Your task to perform on an android device: What's on the menu at Five Guys? Image 0: 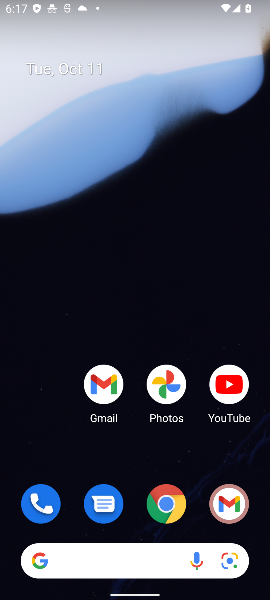
Step 0: click (112, 570)
Your task to perform on an android device: What's on the menu at Five Guys? Image 1: 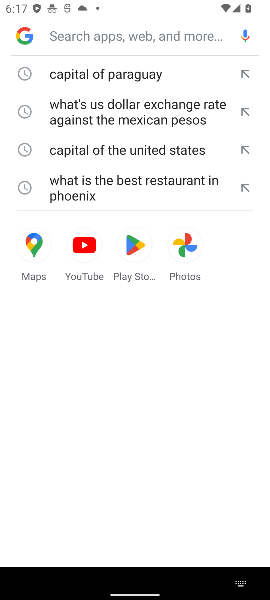
Step 1: click (67, 43)
Your task to perform on an android device: What's on the menu at Five Guys? Image 2: 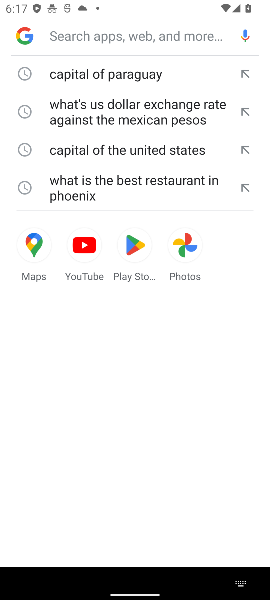
Step 2: type "What's on the menu at Five Guys?"
Your task to perform on an android device: What's on the menu at Five Guys? Image 3: 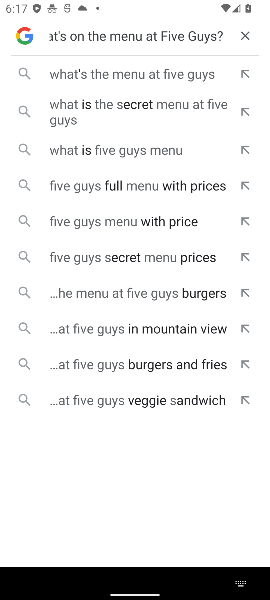
Step 3: click (95, 76)
Your task to perform on an android device: What's on the menu at Five Guys? Image 4: 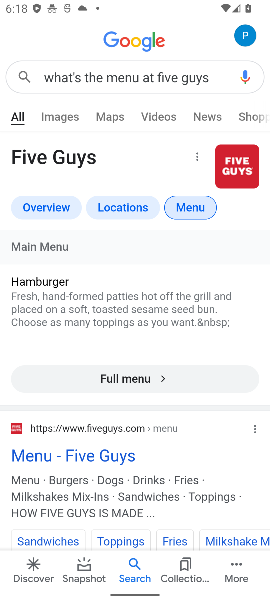
Step 4: task complete